Your task to perform on an android device: Open Google Chrome and click the shortcut for Amazon.com Image 0: 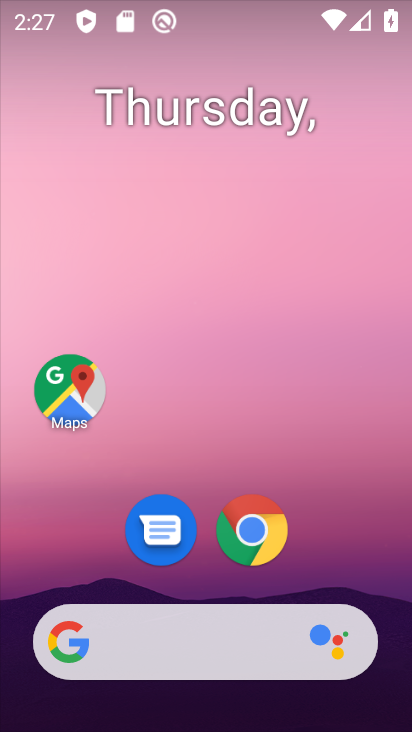
Step 0: press home button
Your task to perform on an android device: Open Google Chrome and click the shortcut for Amazon.com Image 1: 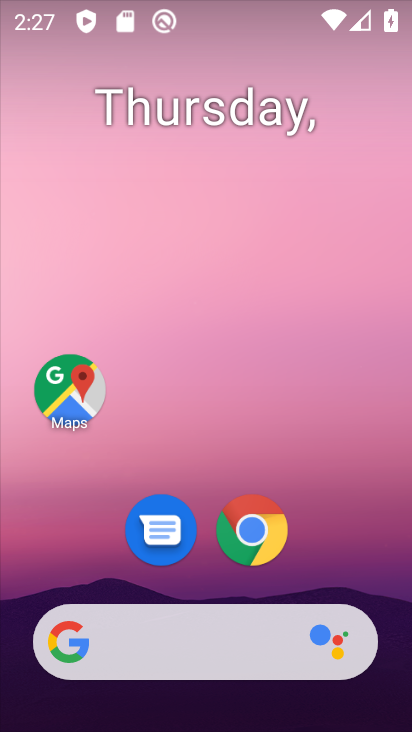
Step 1: click (225, 540)
Your task to perform on an android device: Open Google Chrome and click the shortcut for Amazon.com Image 2: 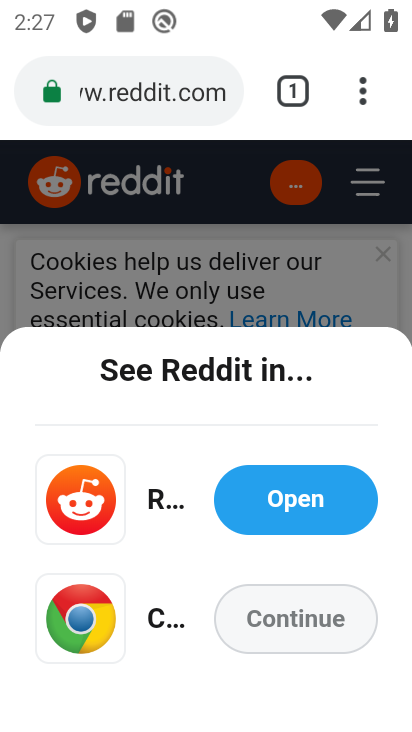
Step 2: drag from (361, 87) to (91, 193)
Your task to perform on an android device: Open Google Chrome and click the shortcut for Amazon.com Image 3: 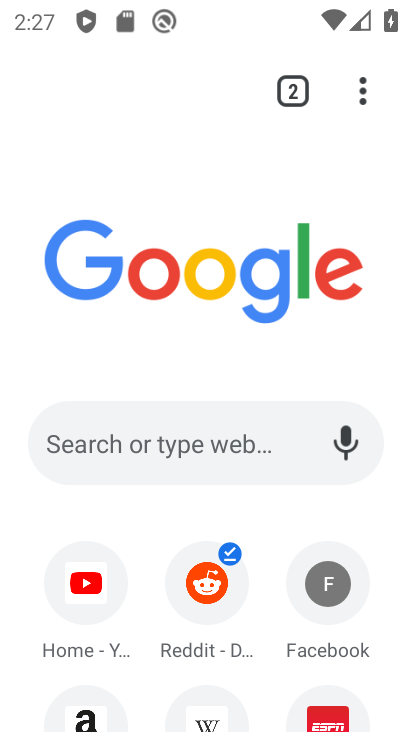
Step 3: click (68, 692)
Your task to perform on an android device: Open Google Chrome and click the shortcut for Amazon.com Image 4: 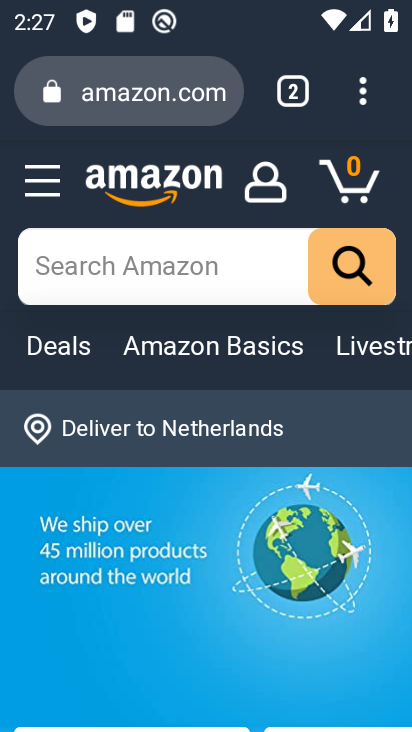
Step 4: task complete